Your task to perform on an android device: turn off airplane mode Image 0: 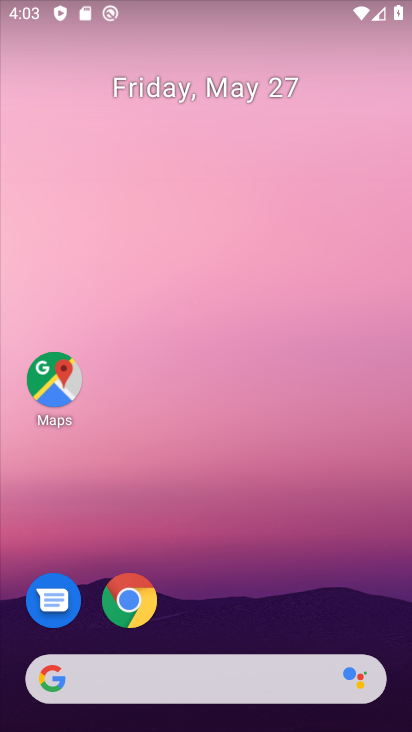
Step 0: drag from (309, 599) to (388, 66)
Your task to perform on an android device: turn off airplane mode Image 1: 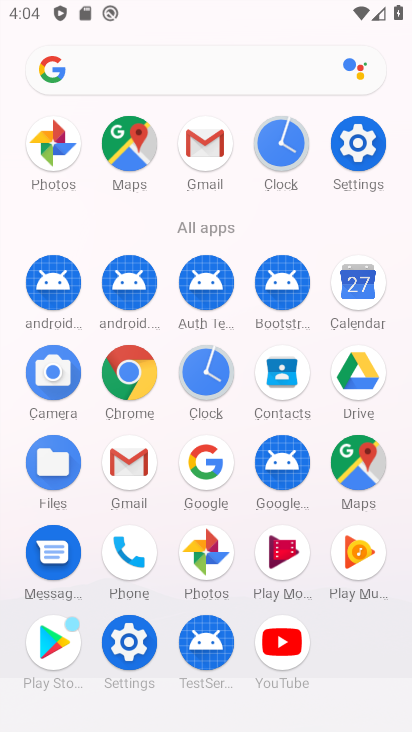
Step 1: click (371, 150)
Your task to perform on an android device: turn off airplane mode Image 2: 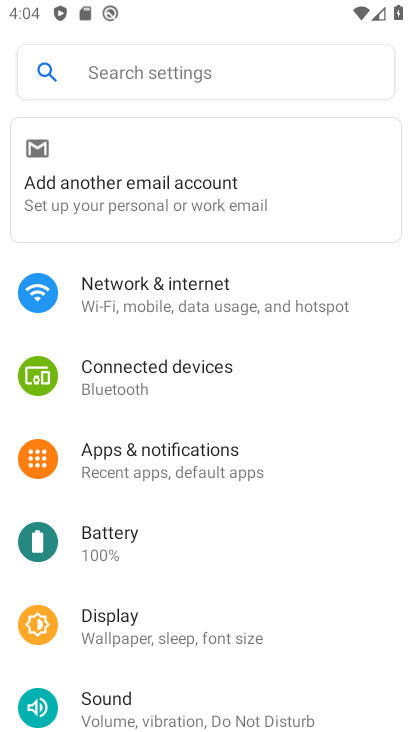
Step 2: click (172, 281)
Your task to perform on an android device: turn off airplane mode Image 3: 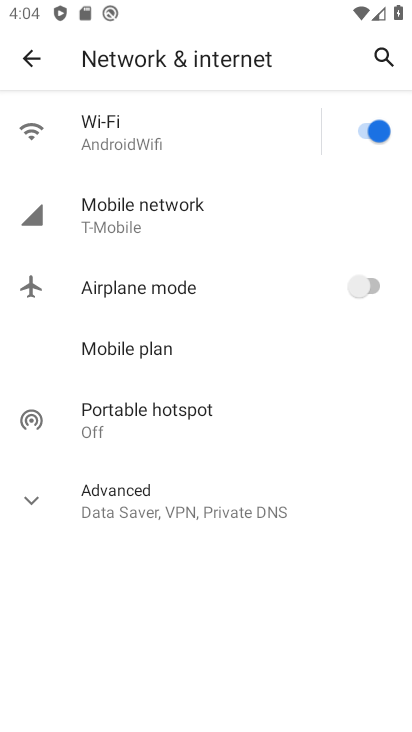
Step 3: task complete